Your task to perform on an android device: toggle translation in the chrome app Image 0: 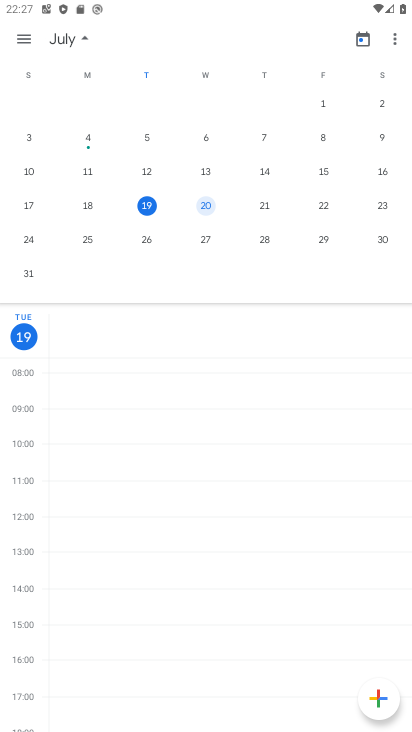
Step 0: press home button
Your task to perform on an android device: toggle translation in the chrome app Image 1: 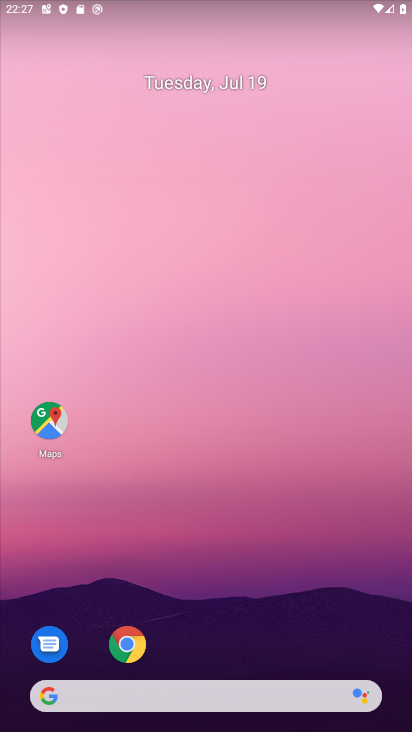
Step 1: drag from (228, 728) to (204, 296)
Your task to perform on an android device: toggle translation in the chrome app Image 2: 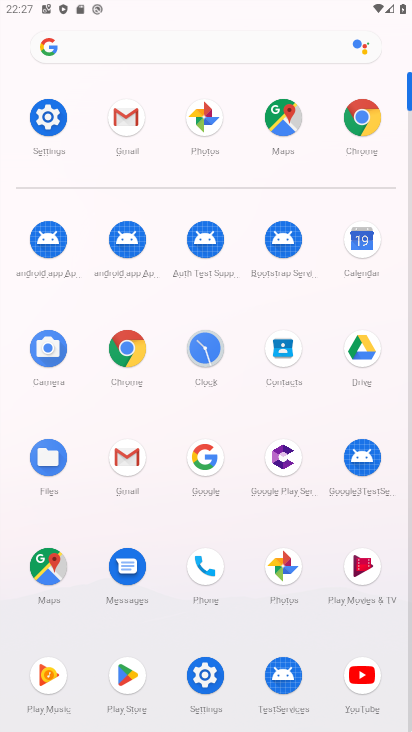
Step 2: click (123, 344)
Your task to perform on an android device: toggle translation in the chrome app Image 3: 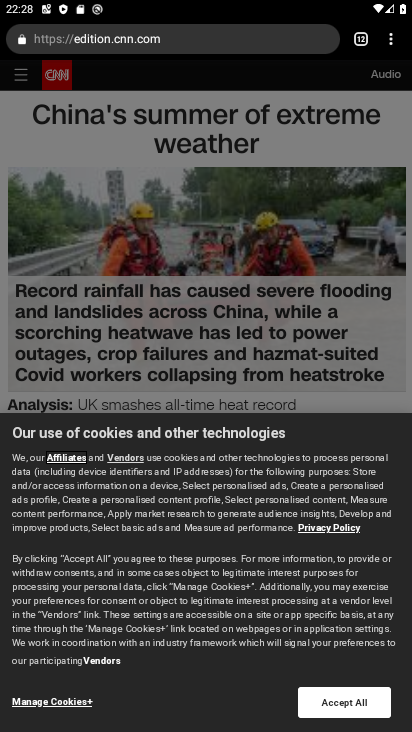
Step 3: click (382, 39)
Your task to perform on an android device: toggle translation in the chrome app Image 4: 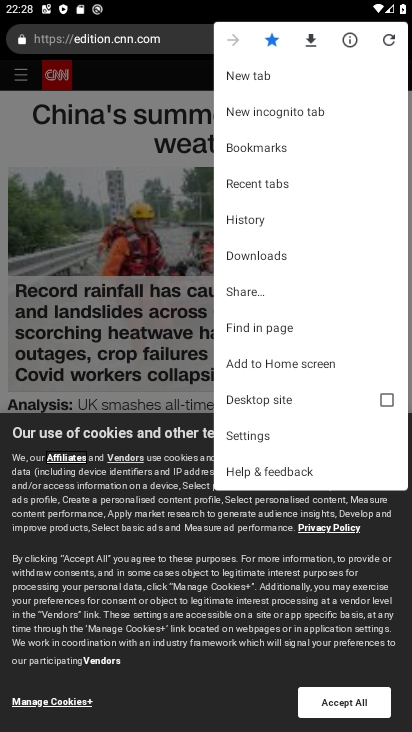
Step 4: click (253, 433)
Your task to perform on an android device: toggle translation in the chrome app Image 5: 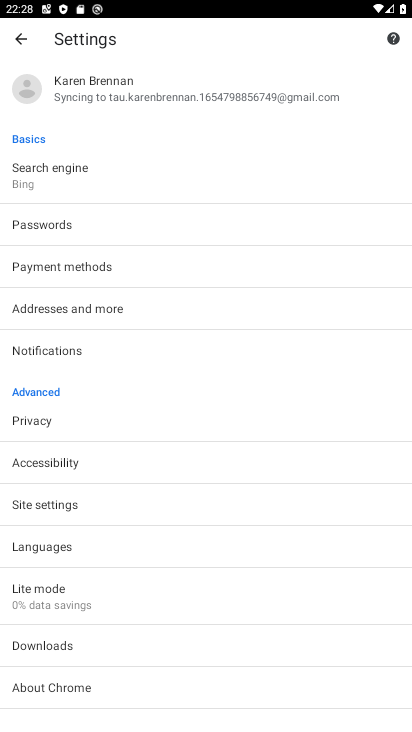
Step 5: click (45, 545)
Your task to perform on an android device: toggle translation in the chrome app Image 6: 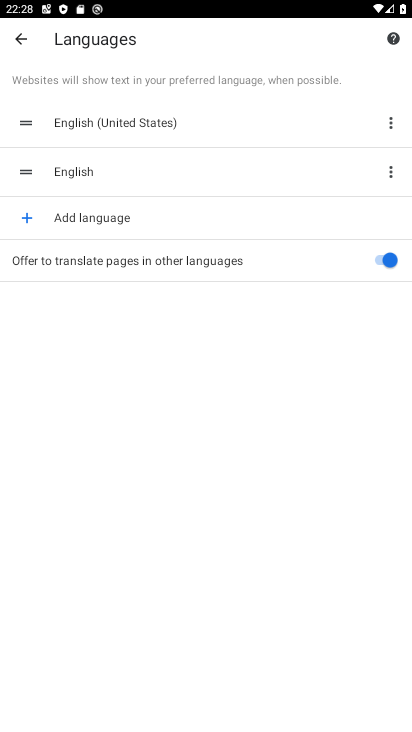
Step 6: click (385, 263)
Your task to perform on an android device: toggle translation in the chrome app Image 7: 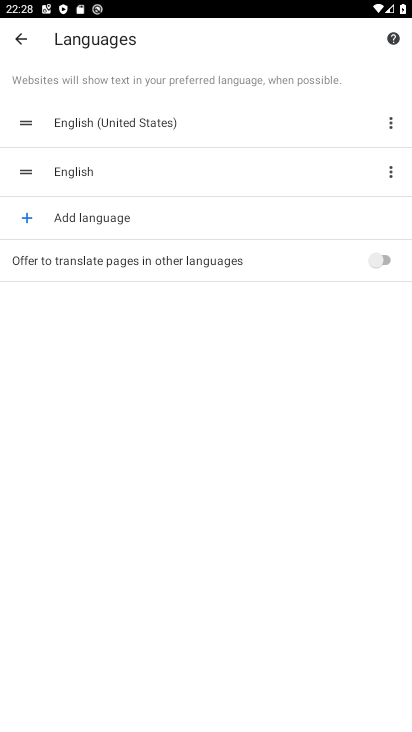
Step 7: task complete